Your task to perform on an android device: empty trash in google photos Image 0: 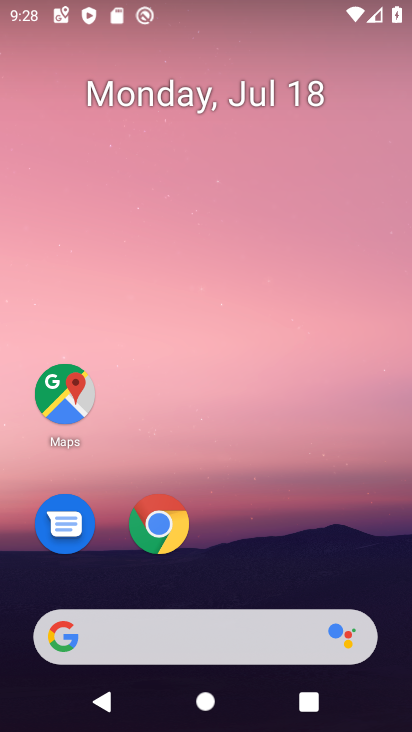
Step 0: drag from (252, 543) to (303, 81)
Your task to perform on an android device: empty trash in google photos Image 1: 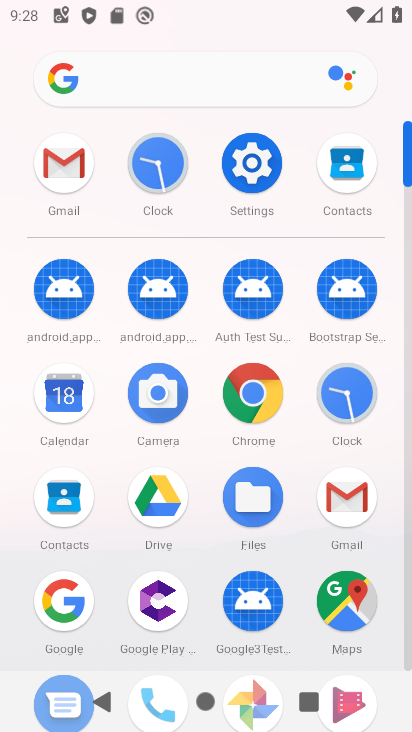
Step 1: drag from (281, 403) to (333, 166)
Your task to perform on an android device: empty trash in google photos Image 2: 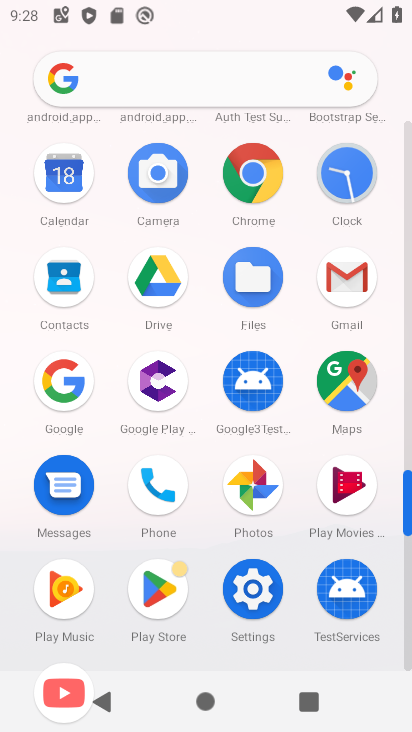
Step 2: click (244, 486)
Your task to perform on an android device: empty trash in google photos Image 3: 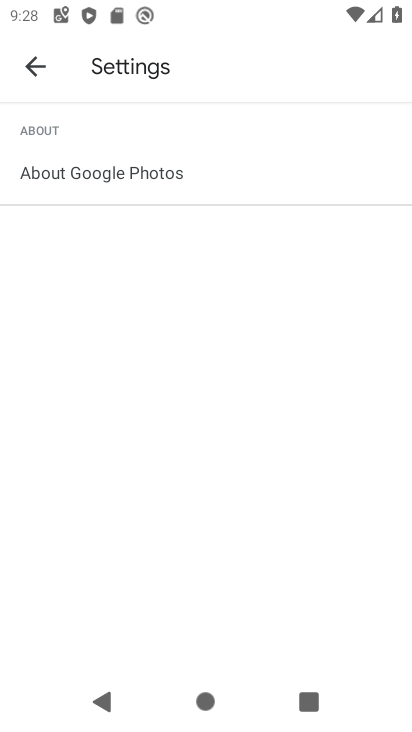
Step 3: click (42, 66)
Your task to perform on an android device: empty trash in google photos Image 4: 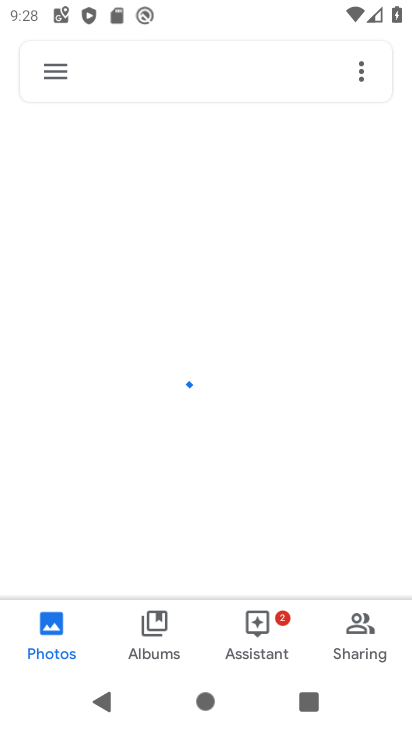
Step 4: click (54, 64)
Your task to perform on an android device: empty trash in google photos Image 5: 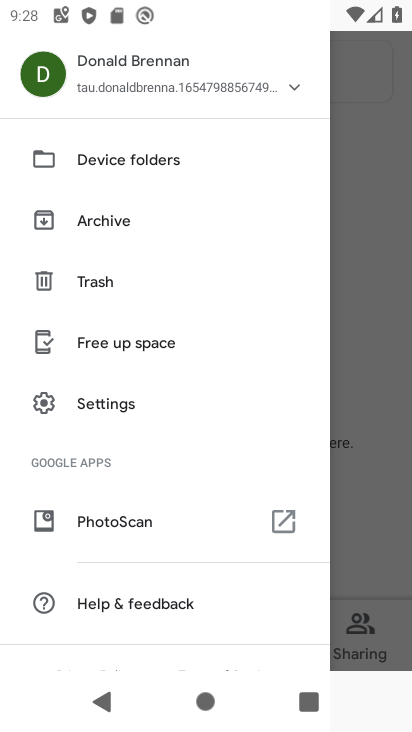
Step 5: click (119, 283)
Your task to perform on an android device: empty trash in google photos Image 6: 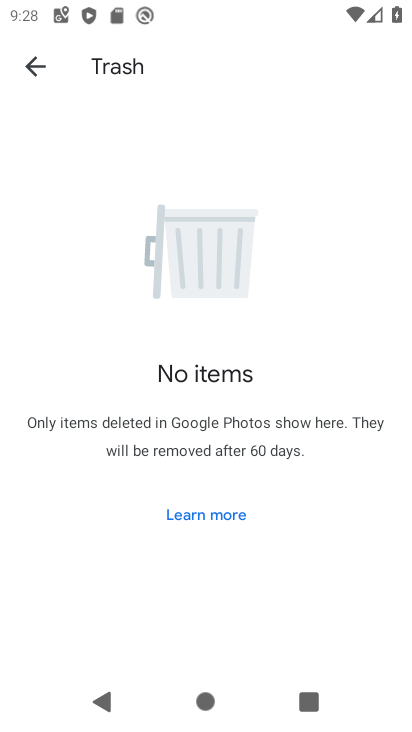
Step 6: task complete